Your task to perform on an android device: Clear the shopping cart on newegg. Search for razer nari on newegg, select the first entry, and add it to the cart. Image 0: 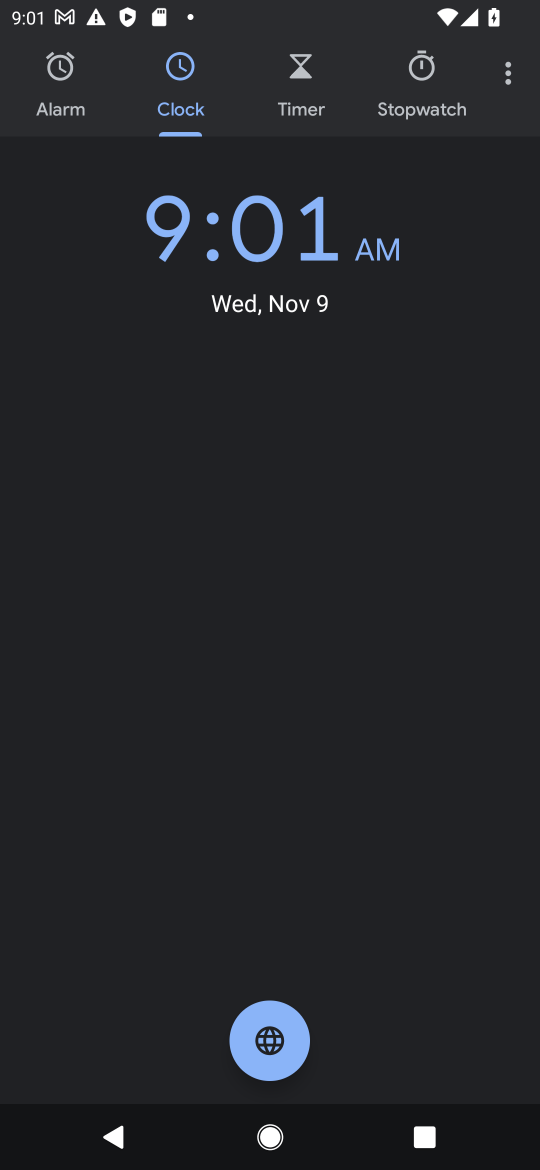
Step 0: press home button
Your task to perform on an android device: Clear the shopping cart on newegg. Search for razer nari on newegg, select the first entry, and add it to the cart. Image 1: 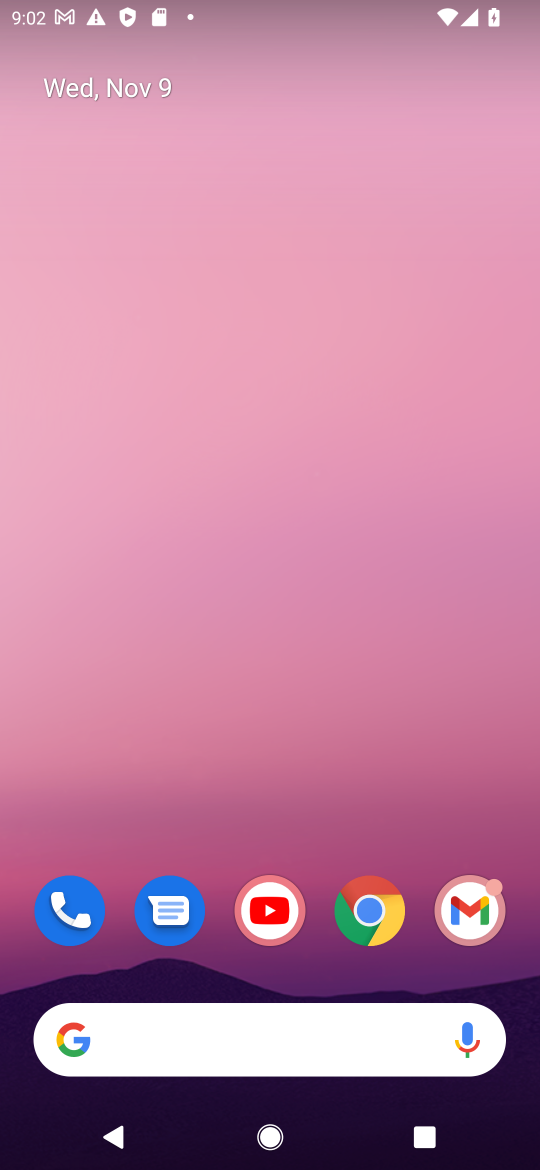
Step 1: click (373, 913)
Your task to perform on an android device: Clear the shopping cart on newegg. Search for razer nari on newegg, select the first entry, and add it to the cart. Image 2: 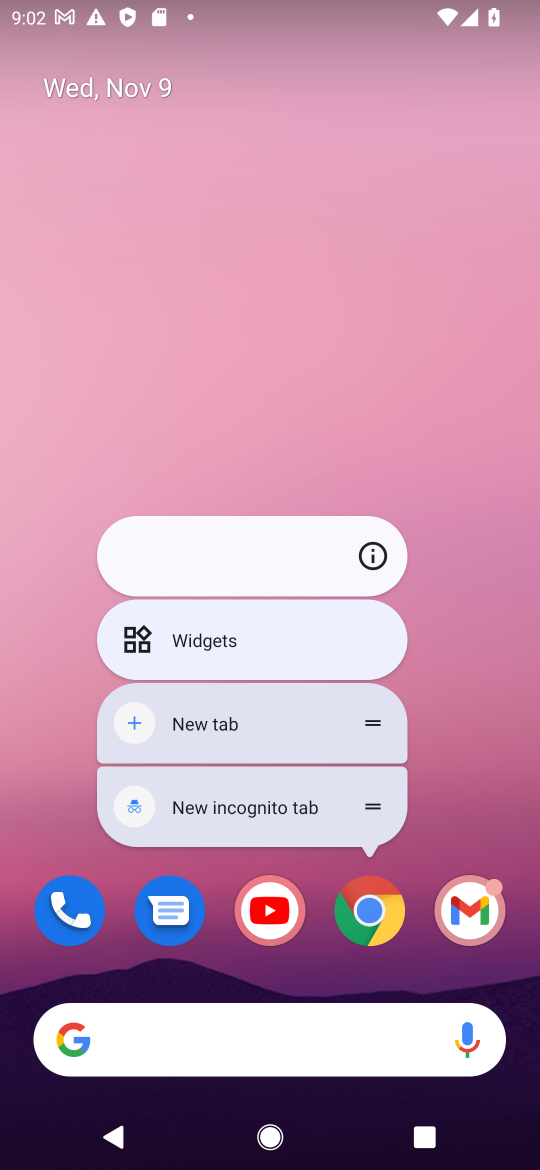
Step 2: click (368, 916)
Your task to perform on an android device: Clear the shopping cart on newegg. Search for razer nari on newegg, select the first entry, and add it to the cart. Image 3: 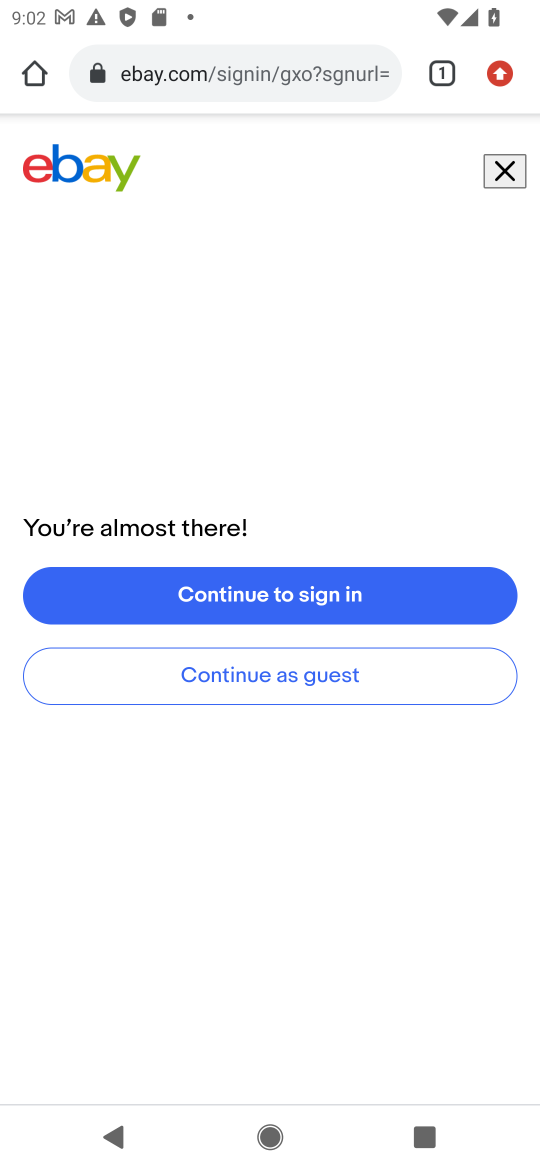
Step 3: click (195, 71)
Your task to perform on an android device: Clear the shopping cart on newegg. Search for razer nari on newegg, select the first entry, and add it to the cart. Image 4: 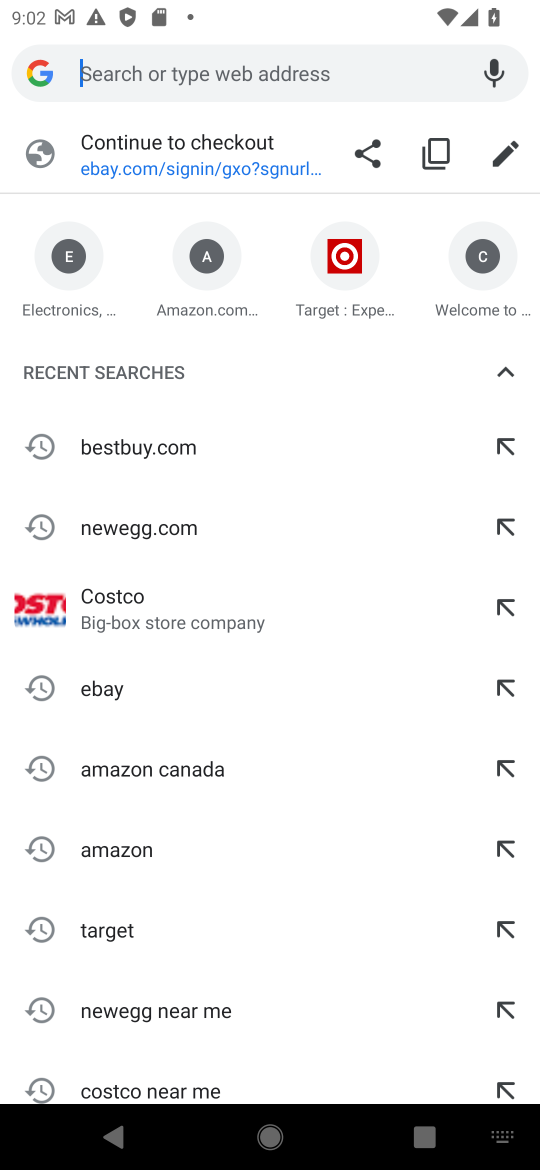
Step 4: click (119, 527)
Your task to perform on an android device: Clear the shopping cart on newegg. Search for razer nari on newegg, select the first entry, and add it to the cart. Image 5: 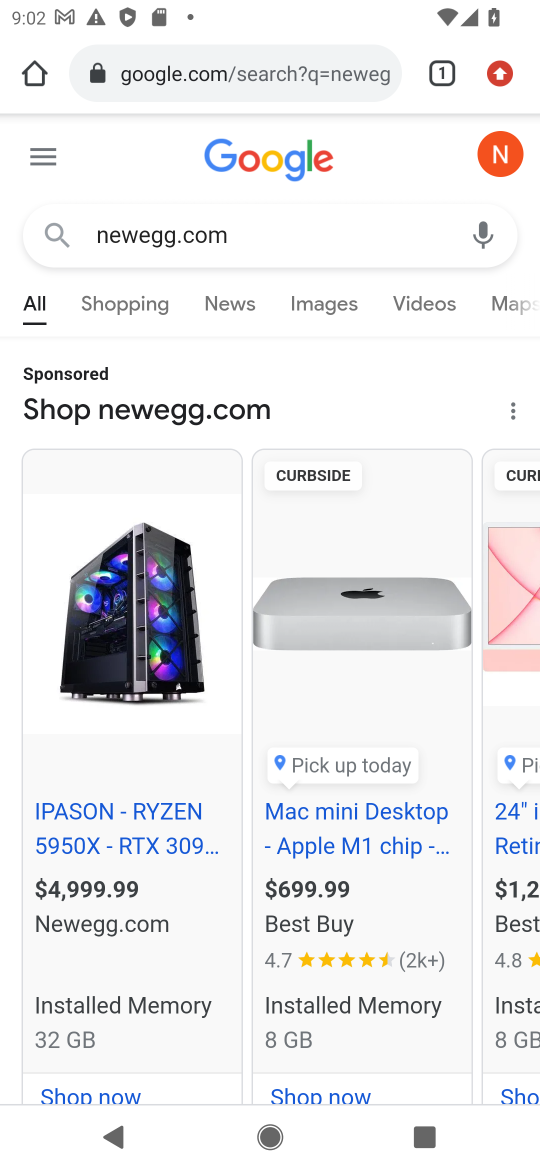
Step 5: drag from (169, 631) to (219, 174)
Your task to perform on an android device: Clear the shopping cart on newegg. Search for razer nari on newegg, select the first entry, and add it to the cart. Image 6: 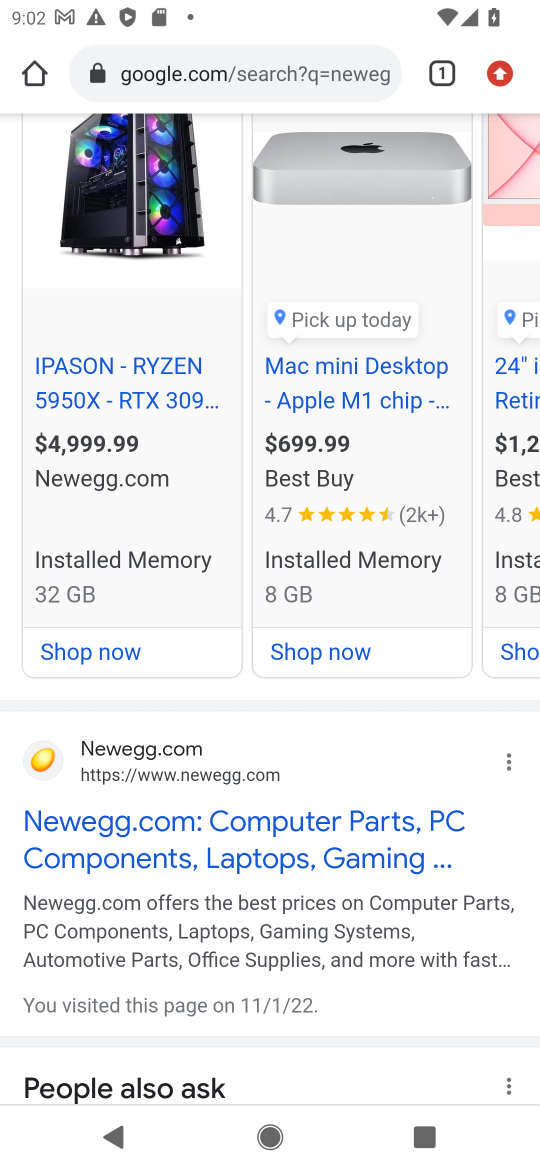
Step 6: click (89, 817)
Your task to perform on an android device: Clear the shopping cart on newegg. Search for razer nari on newegg, select the first entry, and add it to the cart. Image 7: 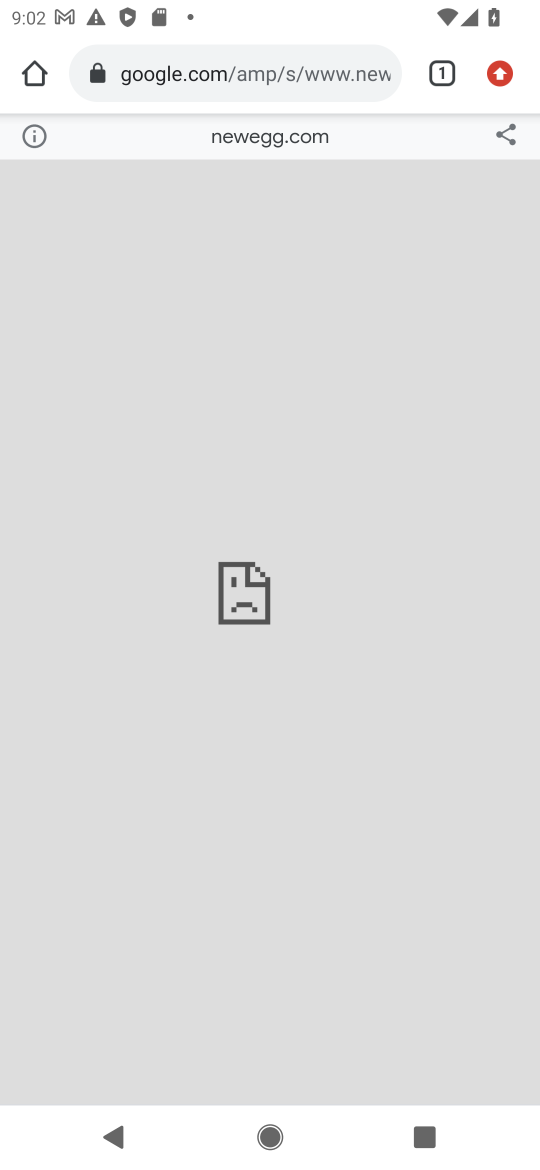
Step 7: press back button
Your task to perform on an android device: Clear the shopping cart on newegg. Search for razer nari on newegg, select the first entry, and add it to the cart. Image 8: 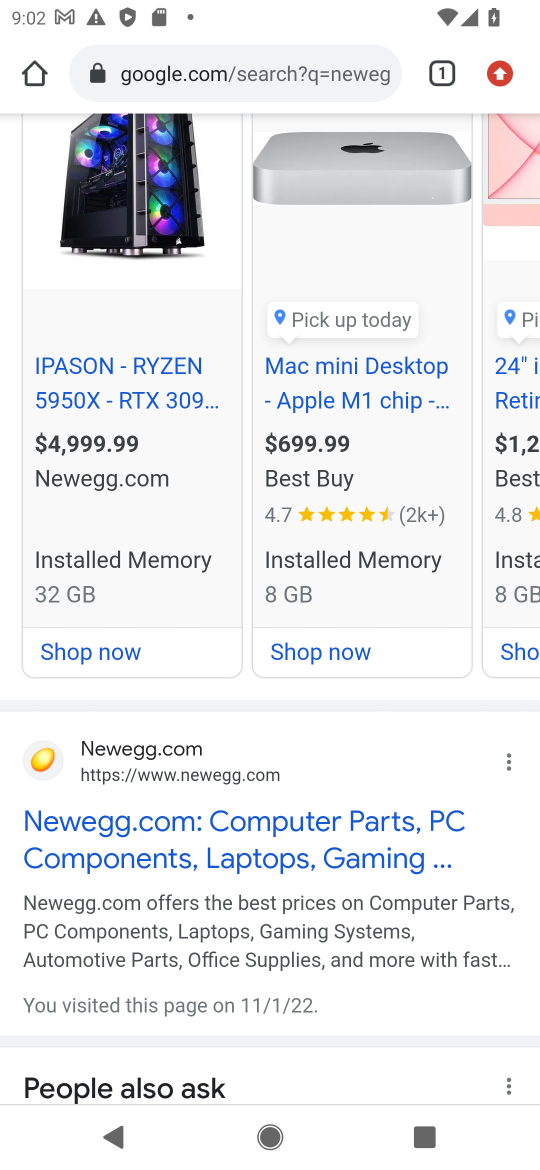
Step 8: drag from (311, 832) to (335, 168)
Your task to perform on an android device: Clear the shopping cart on newegg. Search for razer nari on newegg, select the first entry, and add it to the cart. Image 9: 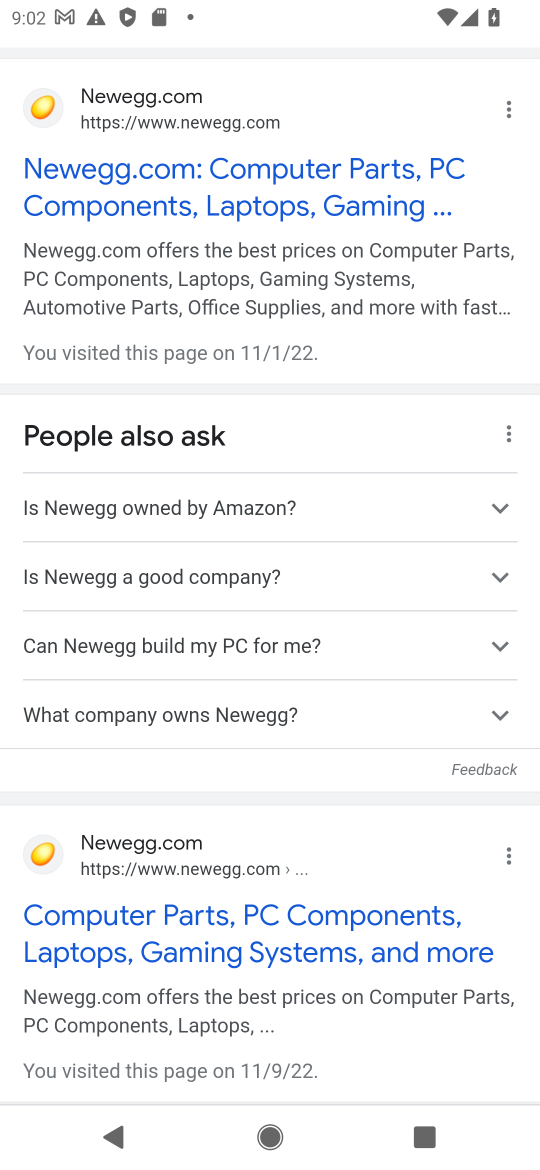
Step 9: click (165, 912)
Your task to perform on an android device: Clear the shopping cart on newegg. Search for razer nari on newegg, select the first entry, and add it to the cart. Image 10: 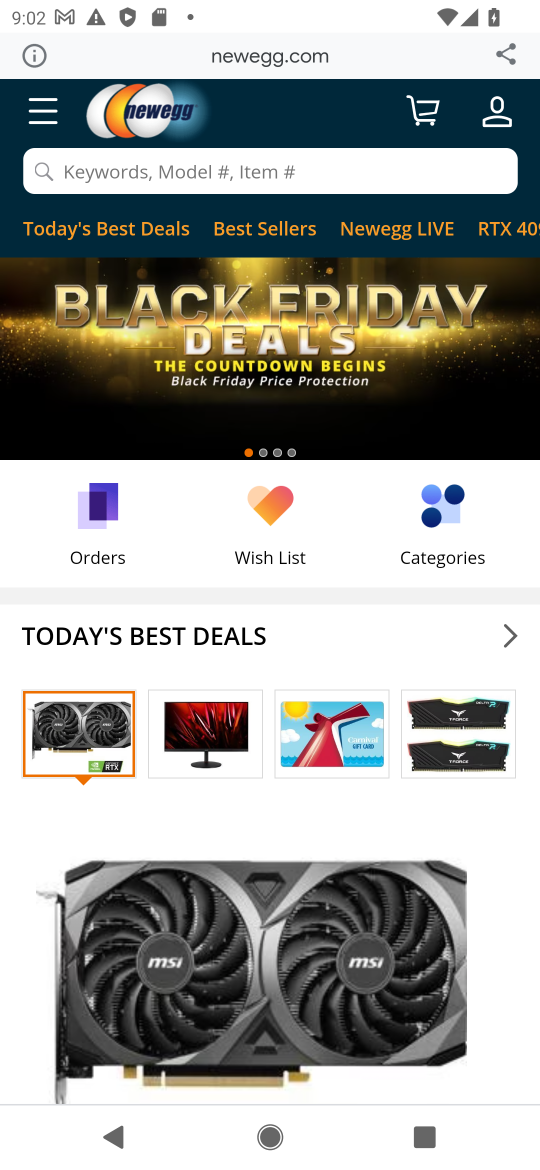
Step 10: click (416, 114)
Your task to perform on an android device: Clear the shopping cart on newegg. Search for razer nari on newegg, select the first entry, and add it to the cart. Image 11: 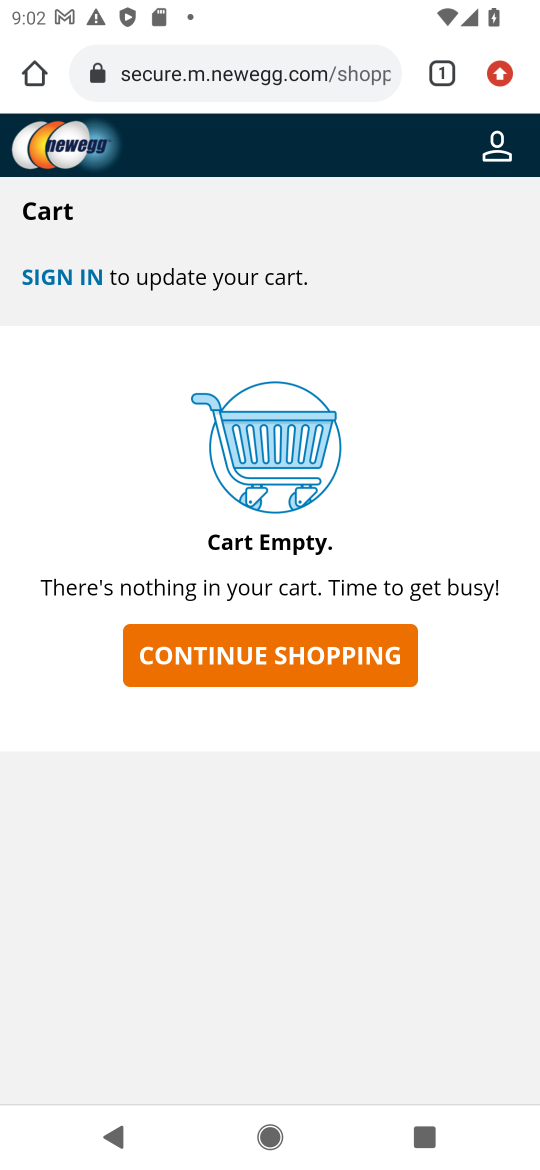
Step 11: click (272, 679)
Your task to perform on an android device: Clear the shopping cart on newegg. Search for razer nari on newegg, select the first entry, and add it to the cart. Image 12: 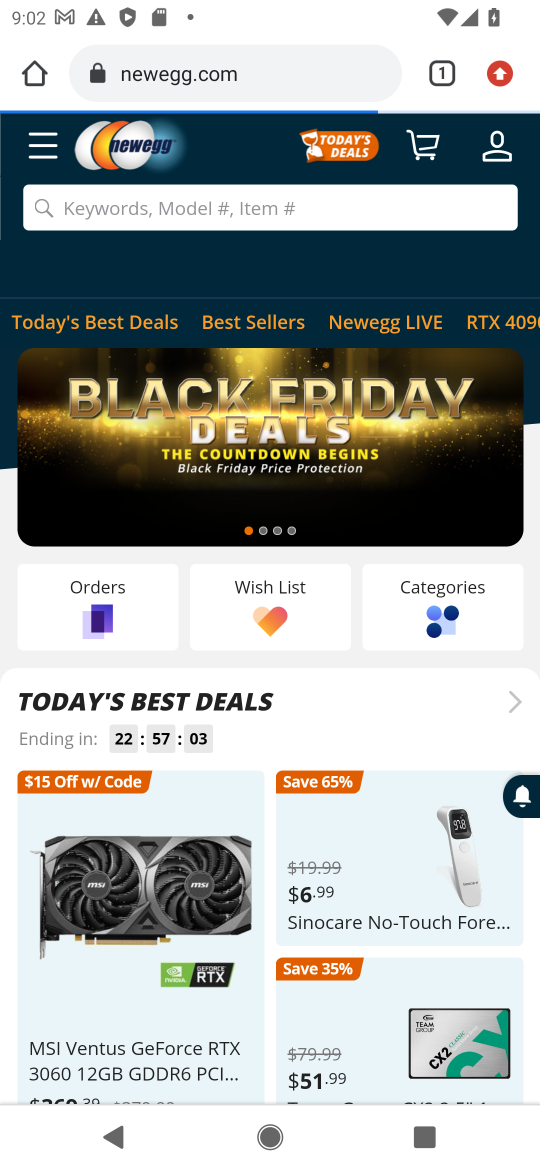
Step 12: click (209, 195)
Your task to perform on an android device: Clear the shopping cart on newegg. Search for razer nari on newegg, select the first entry, and add it to the cart. Image 13: 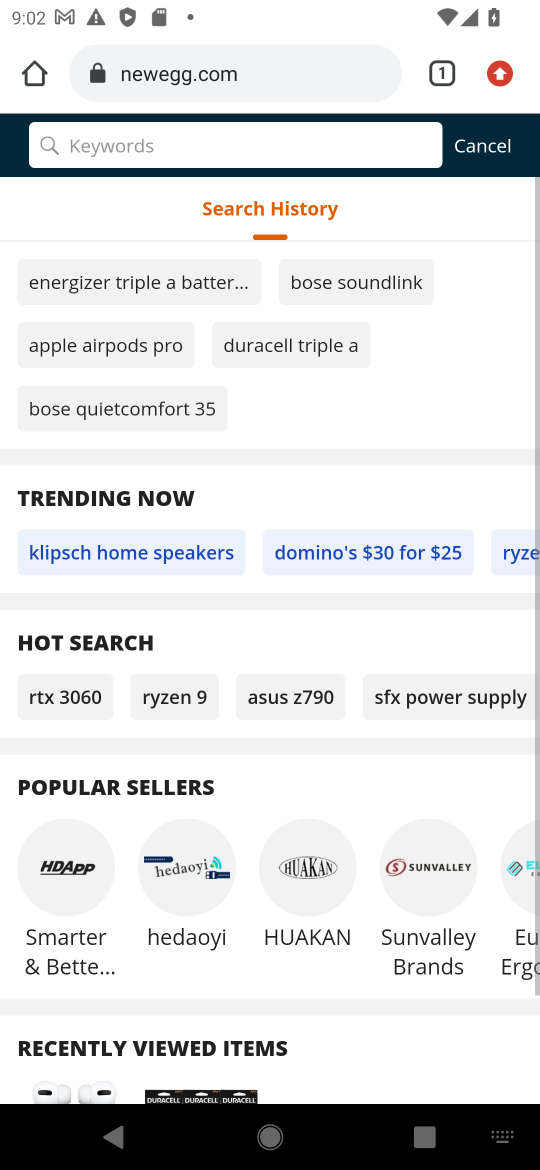
Step 13: type " razer nari "
Your task to perform on an android device: Clear the shopping cart on newegg. Search for razer nari on newegg, select the first entry, and add it to the cart. Image 14: 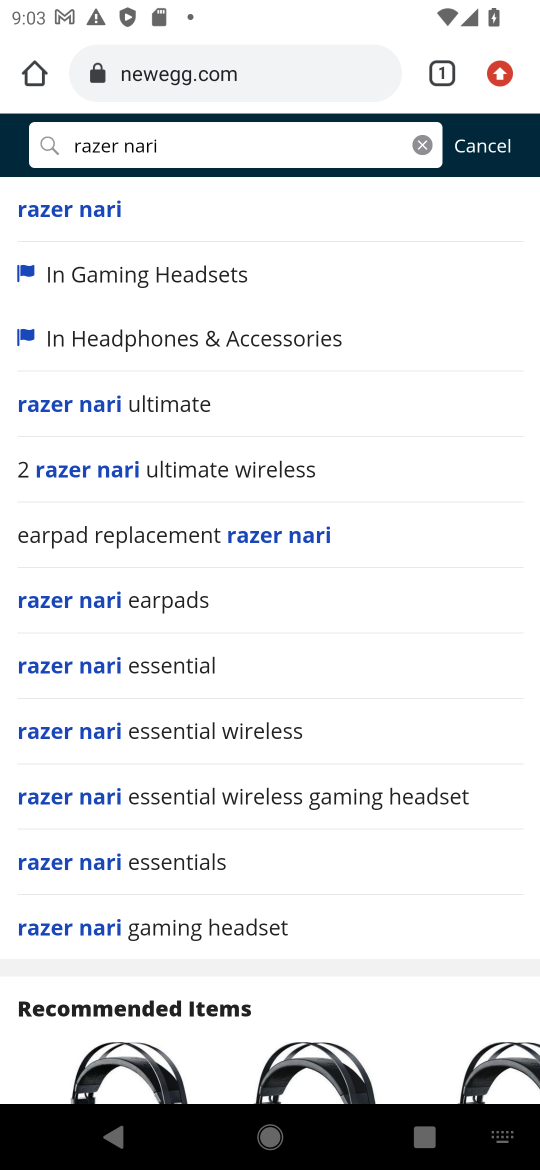
Step 14: click (95, 215)
Your task to perform on an android device: Clear the shopping cart on newegg. Search for razer nari on newegg, select the first entry, and add it to the cart. Image 15: 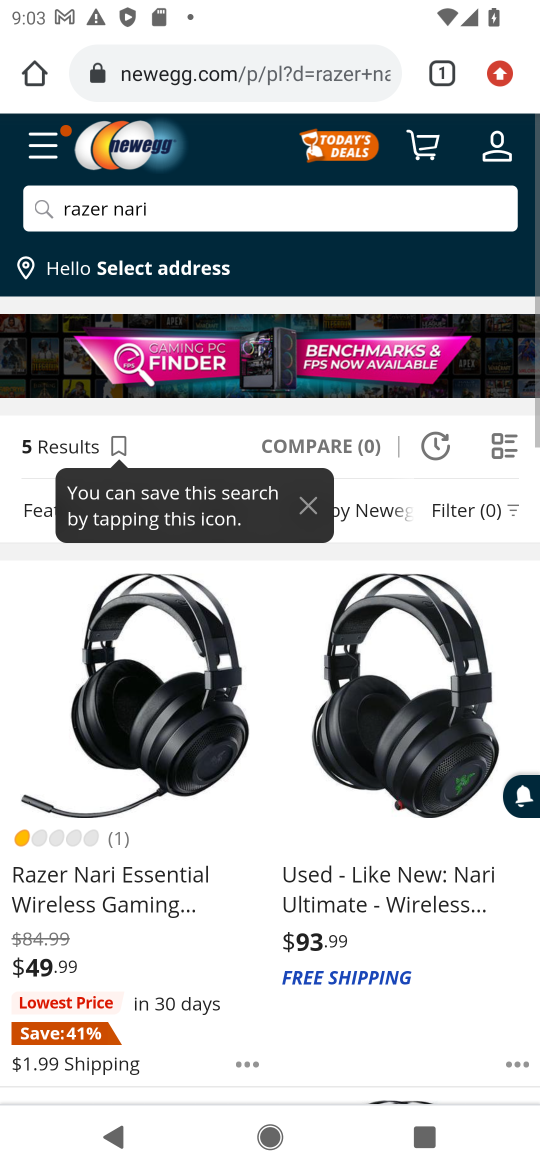
Step 15: click (109, 738)
Your task to perform on an android device: Clear the shopping cart on newegg. Search for razer nari on newegg, select the first entry, and add it to the cart. Image 16: 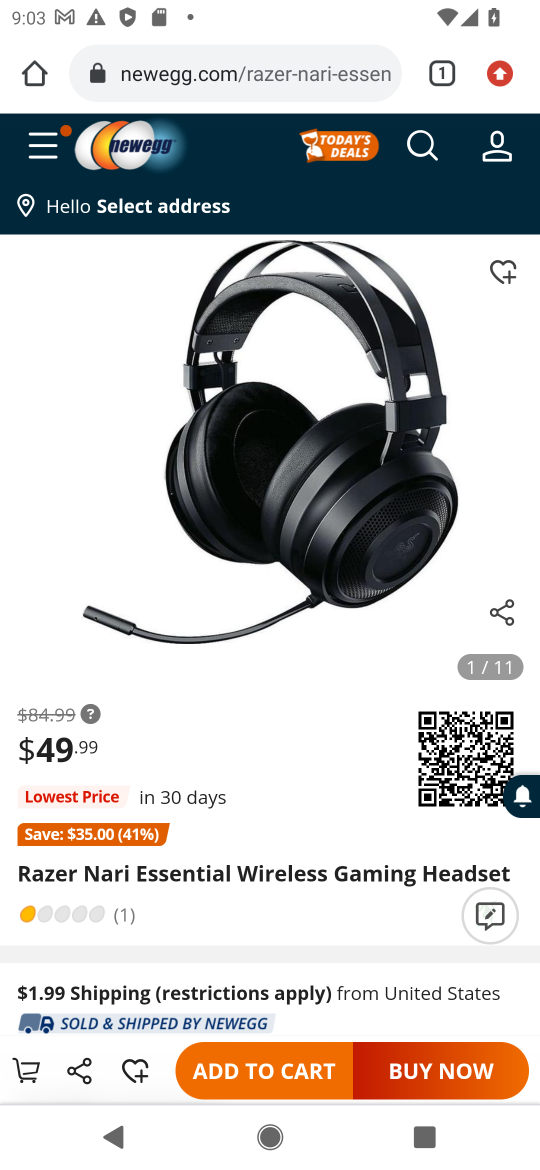
Step 16: drag from (219, 872) to (220, 558)
Your task to perform on an android device: Clear the shopping cart on newegg. Search for razer nari on newegg, select the first entry, and add it to the cart. Image 17: 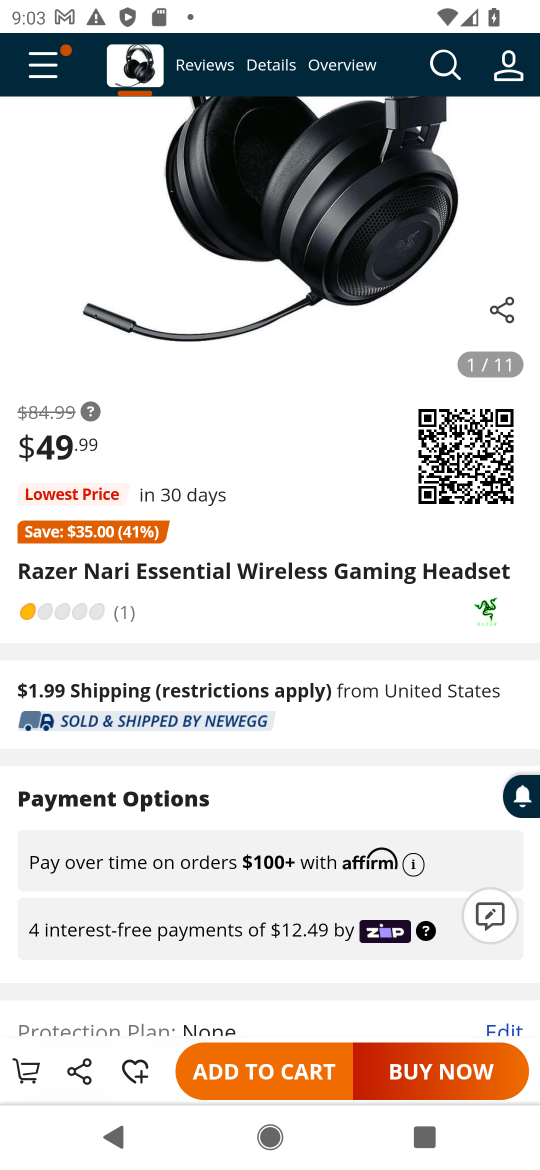
Step 17: click (258, 1072)
Your task to perform on an android device: Clear the shopping cart on newegg. Search for razer nari on newegg, select the first entry, and add it to the cart. Image 18: 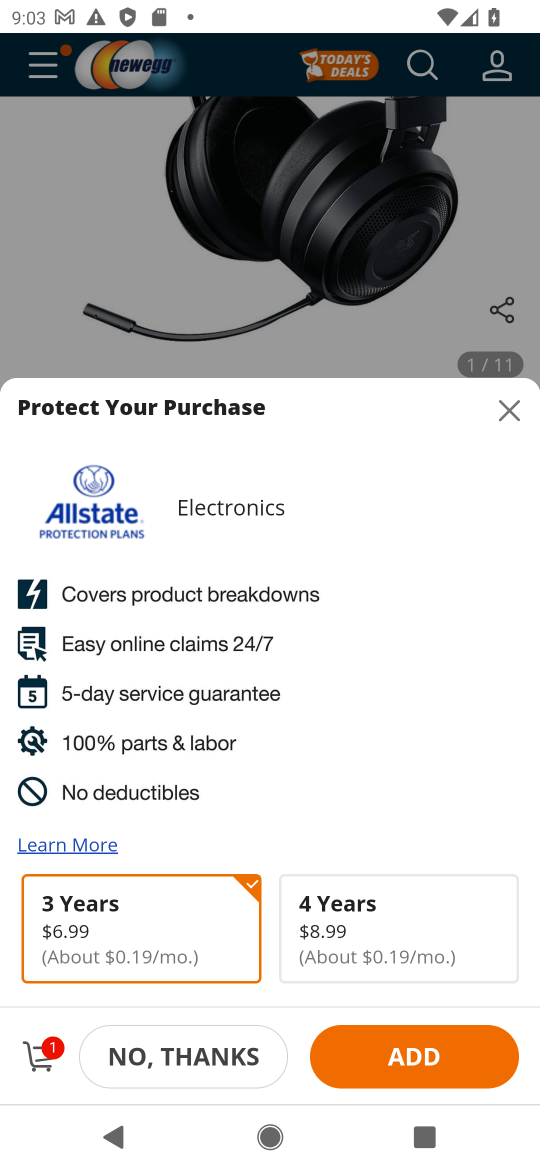
Step 18: task complete